Your task to perform on an android device: turn off location history Image 0: 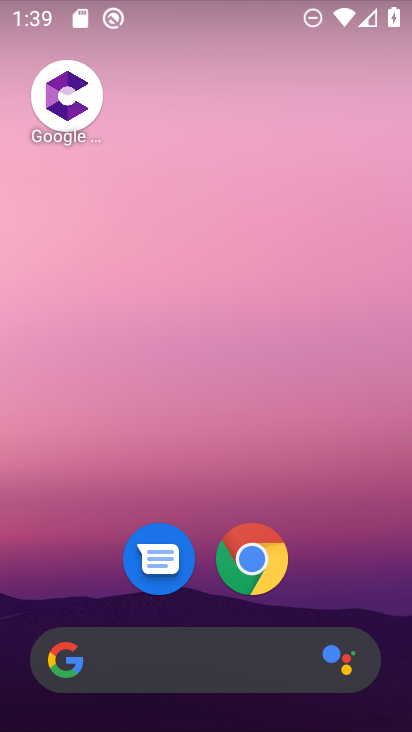
Step 0: drag from (333, 560) to (228, 45)
Your task to perform on an android device: turn off location history Image 1: 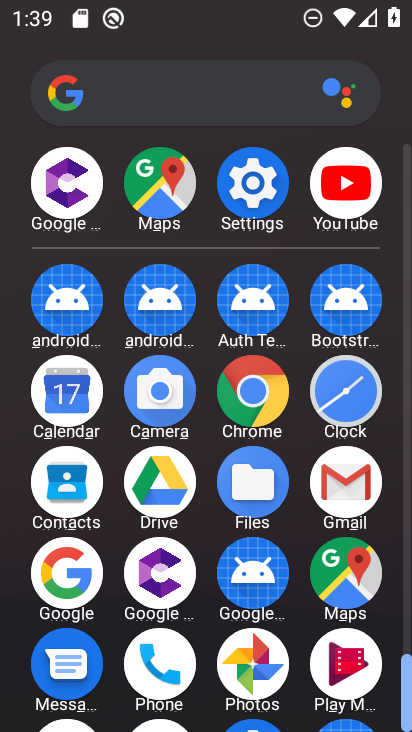
Step 1: click (255, 185)
Your task to perform on an android device: turn off location history Image 2: 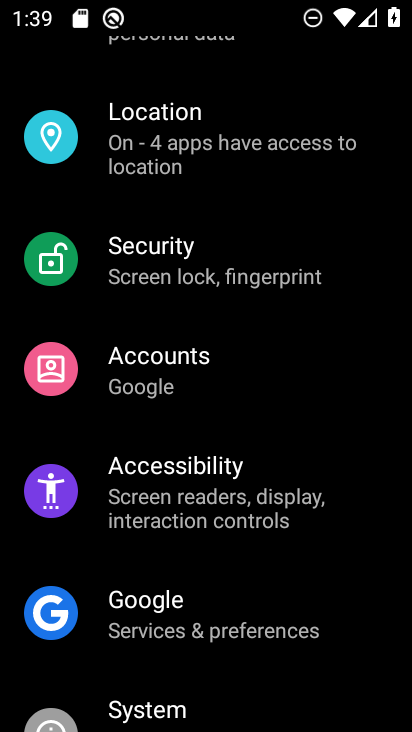
Step 2: drag from (183, 165) to (236, 318)
Your task to perform on an android device: turn off location history Image 3: 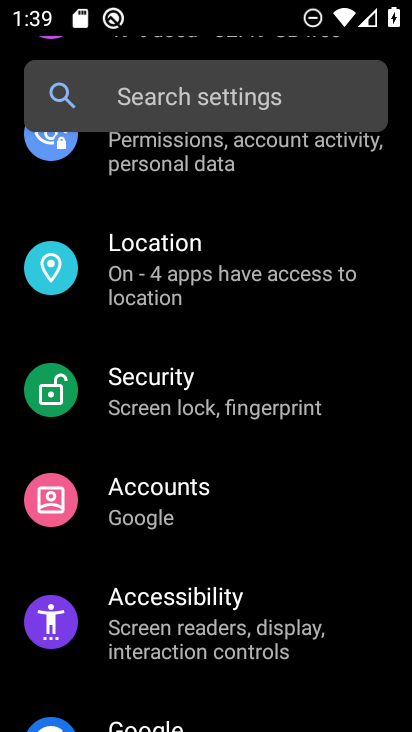
Step 3: click (171, 247)
Your task to perform on an android device: turn off location history Image 4: 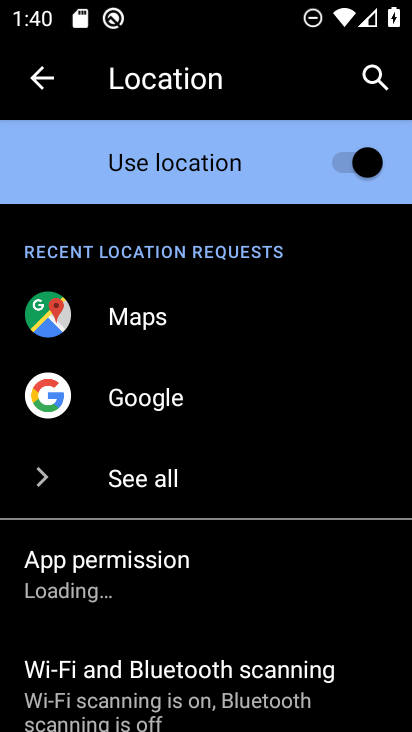
Step 4: drag from (216, 461) to (228, 360)
Your task to perform on an android device: turn off location history Image 5: 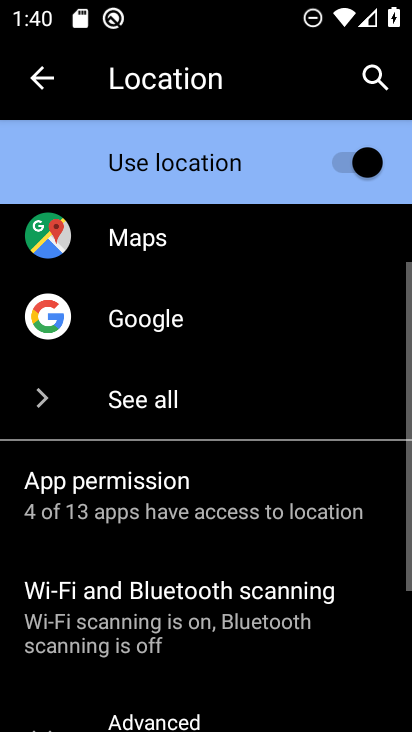
Step 5: drag from (185, 533) to (250, 373)
Your task to perform on an android device: turn off location history Image 6: 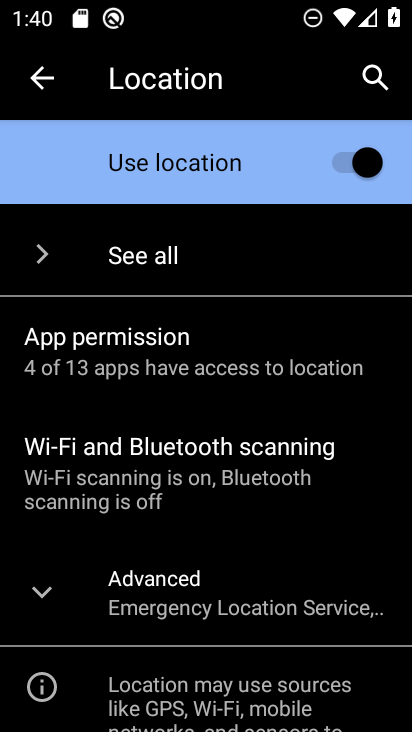
Step 6: click (196, 607)
Your task to perform on an android device: turn off location history Image 7: 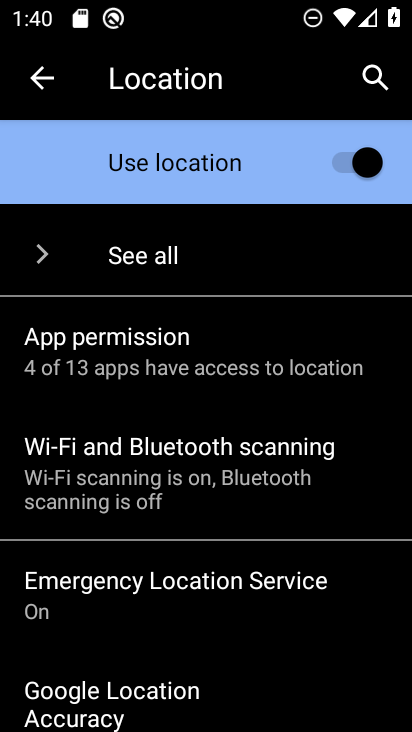
Step 7: drag from (197, 611) to (252, 500)
Your task to perform on an android device: turn off location history Image 8: 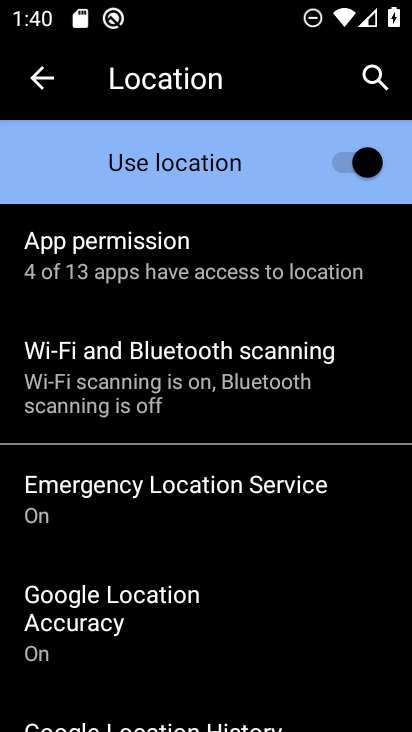
Step 8: drag from (172, 647) to (267, 480)
Your task to perform on an android device: turn off location history Image 9: 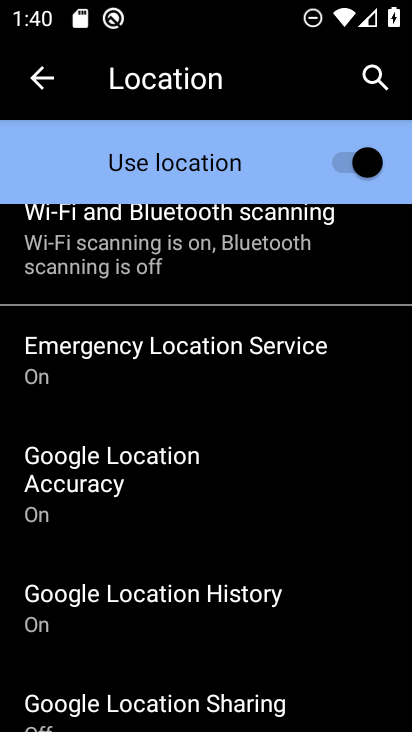
Step 9: click (209, 593)
Your task to perform on an android device: turn off location history Image 10: 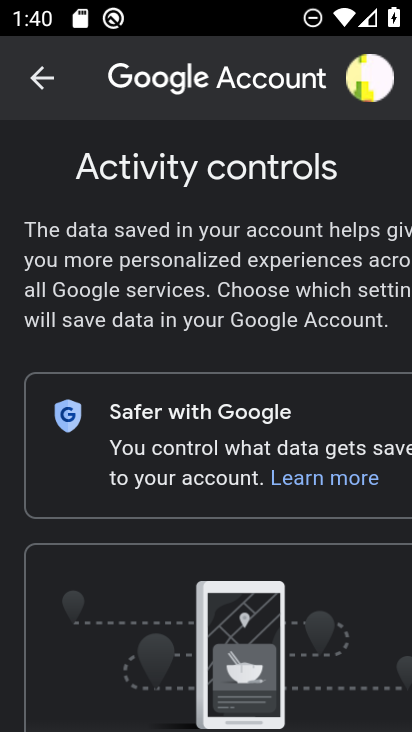
Step 10: task complete